Your task to perform on an android device: Toggle the flashlight Image 0: 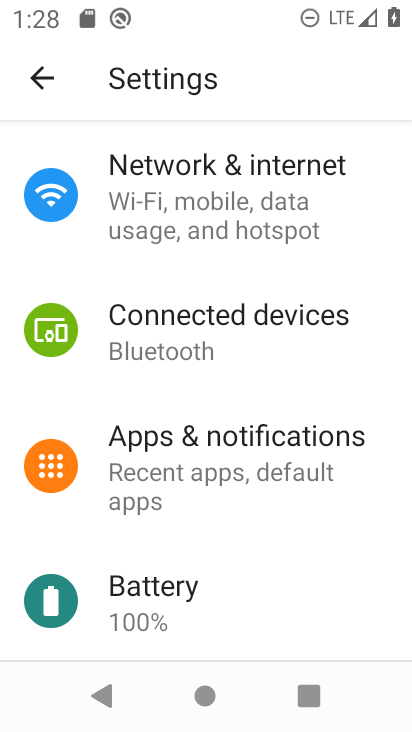
Step 0: task impossible